Your task to perform on an android device: allow cookies in the chrome app Image 0: 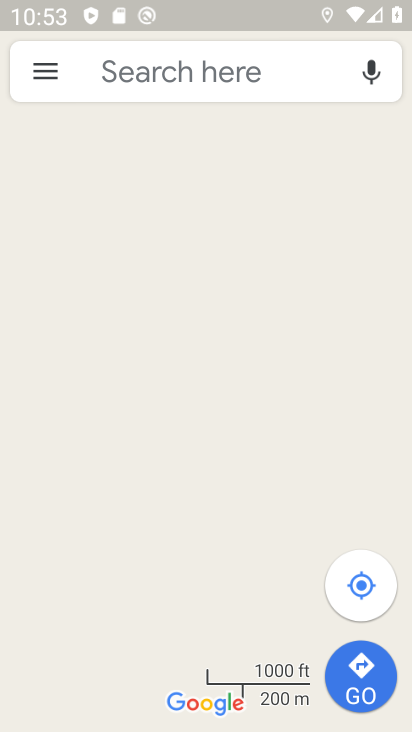
Step 0: press home button
Your task to perform on an android device: allow cookies in the chrome app Image 1: 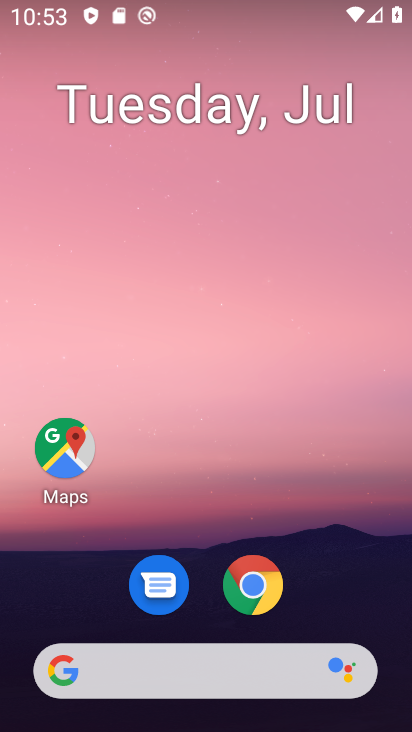
Step 1: click (255, 600)
Your task to perform on an android device: allow cookies in the chrome app Image 2: 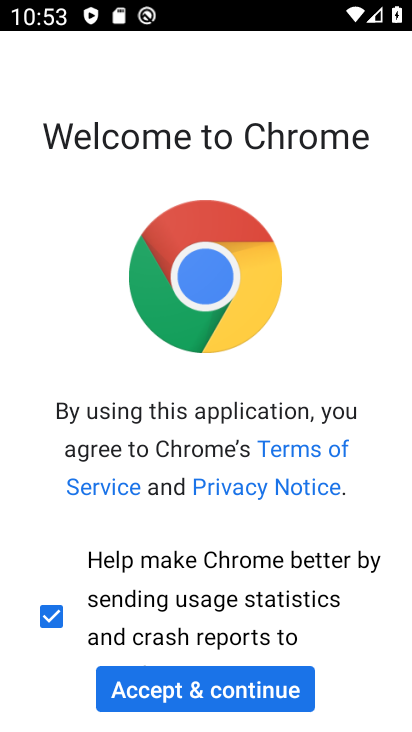
Step 2: click (227, 684)
Your task to perform on an android device: allow cookies in the chrome app Image 3: 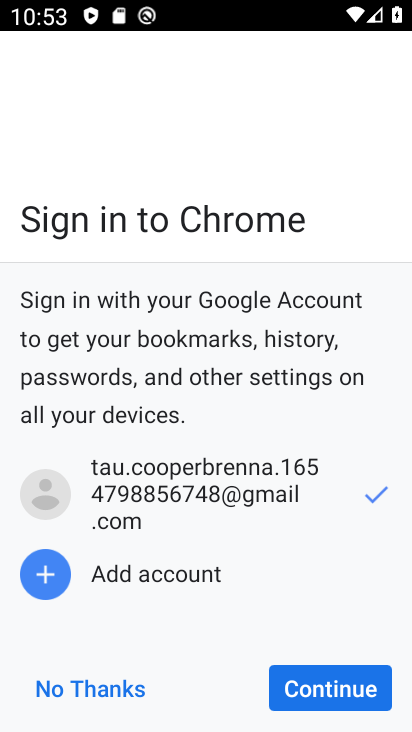
Step 3: click (297, 702)
Your task to perform on an android device: allow cookies in the chrome app Image 4: 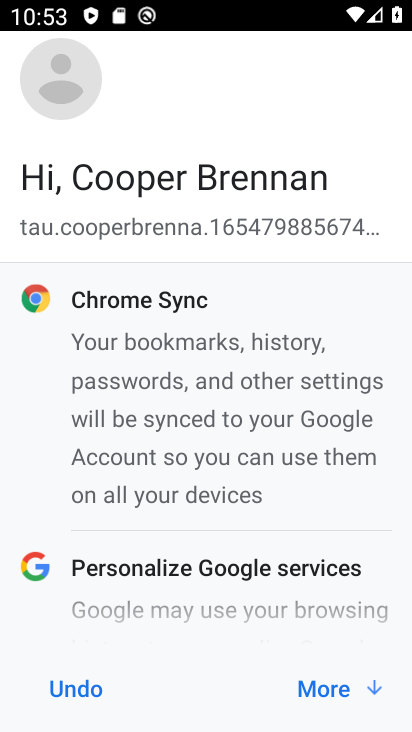
Step 4: click (310, 693)
Your task to perform on an android device: allow cookies in the chrome app Image 5: 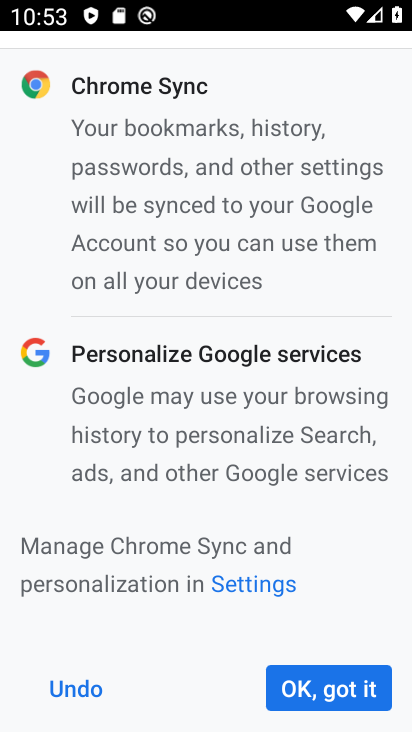
Step 5: click (310, 693)
Your task to perform on an android device: allow cookies in the chrome app Image 6: 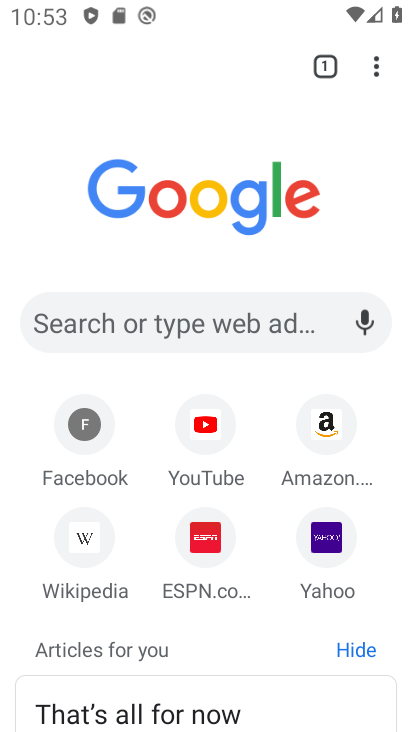
Step 6: drag from (381, 65) to (279, 547)
Your task to perform on an android device: allow cookies in the chrome app Image 7: 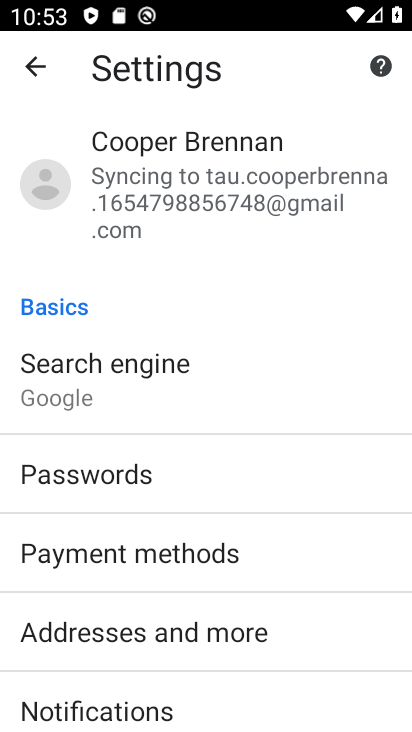
Step 7: drag from (223, 667) to (165, 141)
Your task to perform on an android device: allow cookies in the chrome app Image 8: 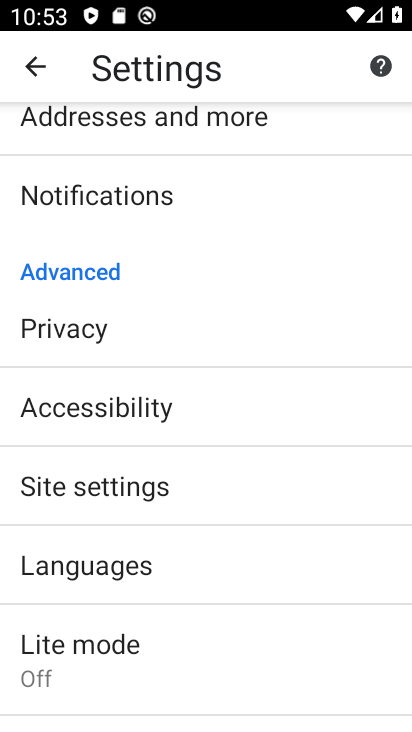
Step 8: click (120, 479)
Your task to perform on an android device: allow cookies in the chrome app Image 9: 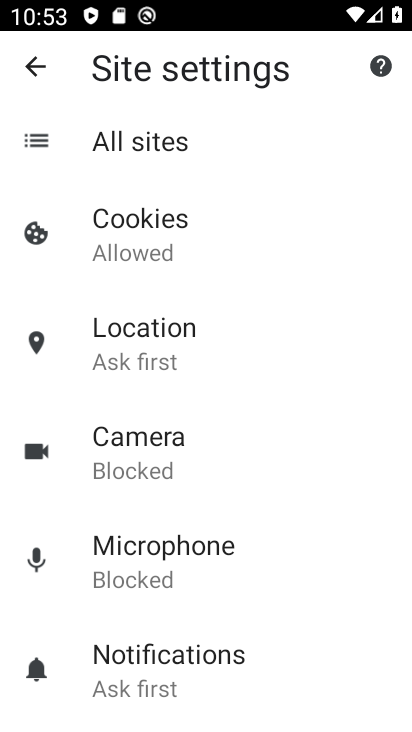
Step 9: click (160, 241)
Your task to perform on an android device: allow cookies in the chrome app Image 10: 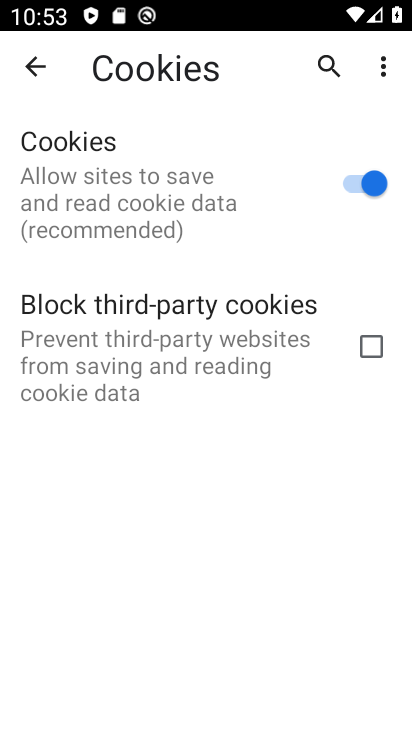
Step 10: task complete